Your task to perform on an android device: Open the map Image 0: 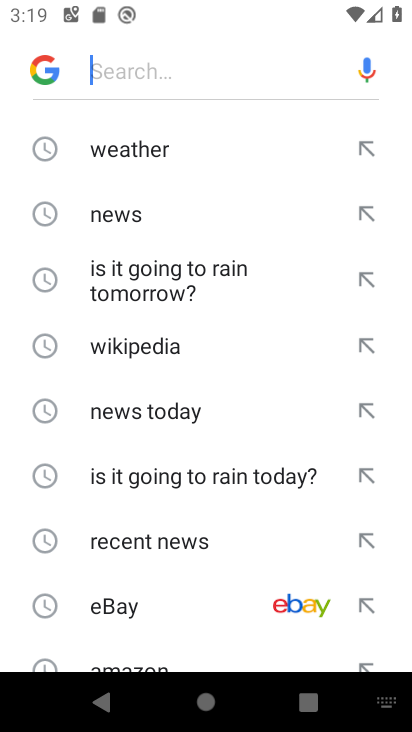
Step 0: press home button
Your task to perform on an android device: Open the map Image 1: 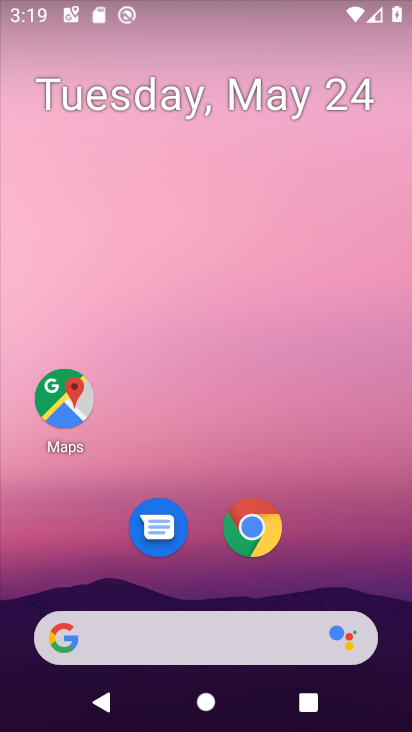
Step 1: click (59, 399)
Your task to perform on an android device: Open the map Image 2: 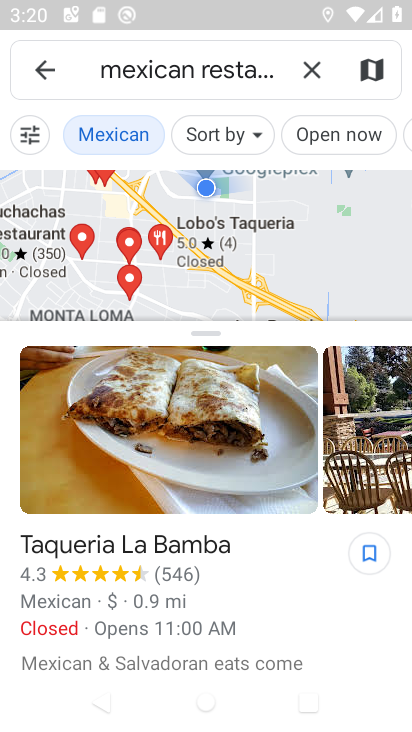
Step 2: task complete